Your task to perform on an android device: Search for "macbook" on walmart.com, select the first entry, add it to the cart, then select checkout. Image 0: 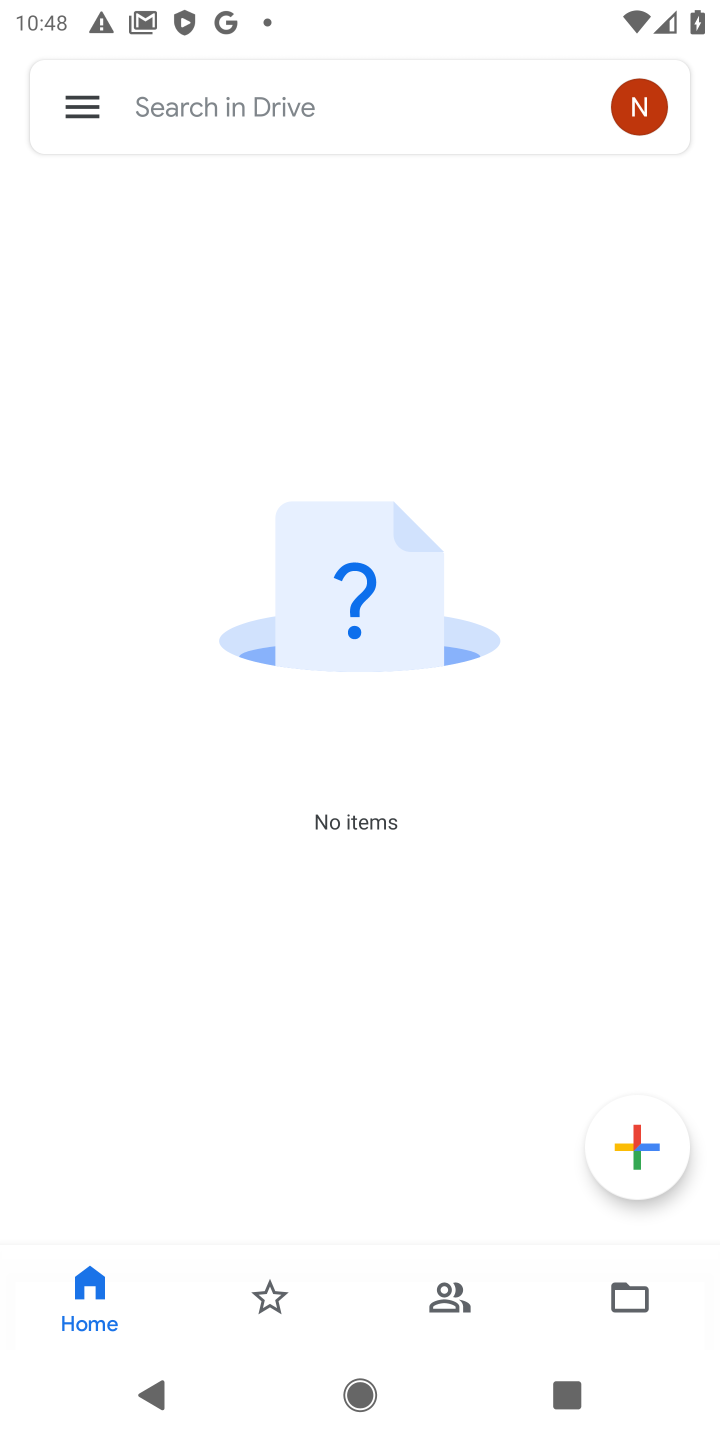
Step 0: press home button
Your task to perform on an android device: Search for "macbook" on walmart.com, select the first entry, add it to the cart, then select checkout. Image 1: 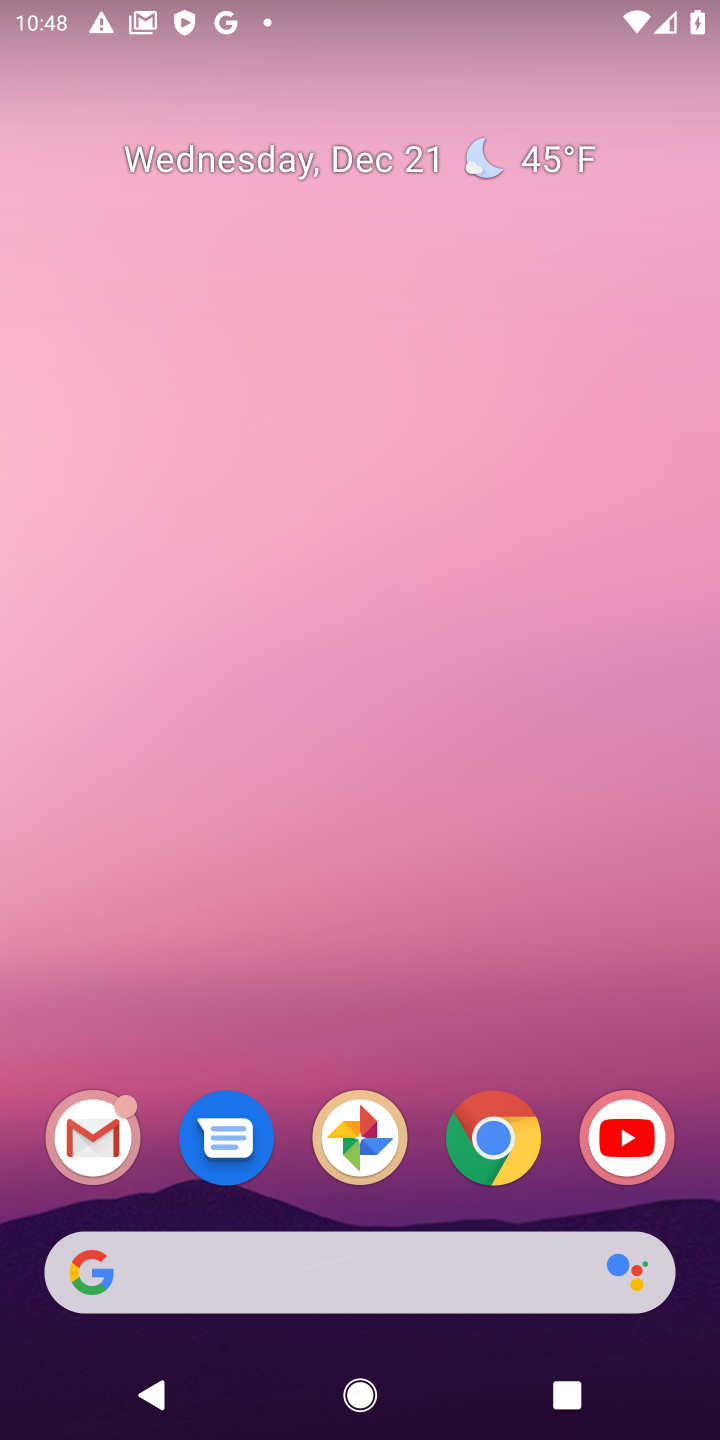
Step 1: click (502, 1143)
Your task to perform on an android device: Search for "macbook" on walmart.com, select the first entry, add it to the cart, then select checkout. Image 2: 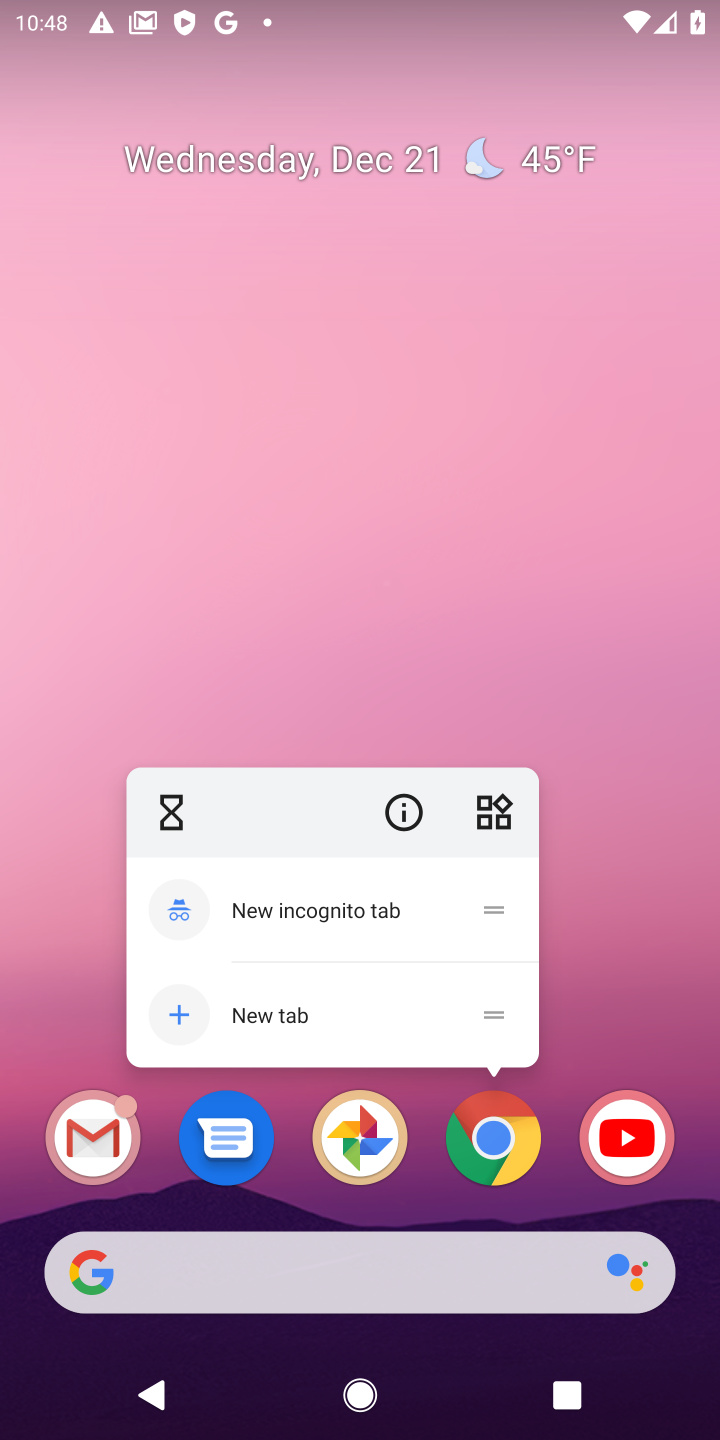
Step 2: click (495, 1156)
Your task to perform on an android device: Search for "macbook" on walmart.com, select the first entry, add it to the cart, then select checkout. Image 3: 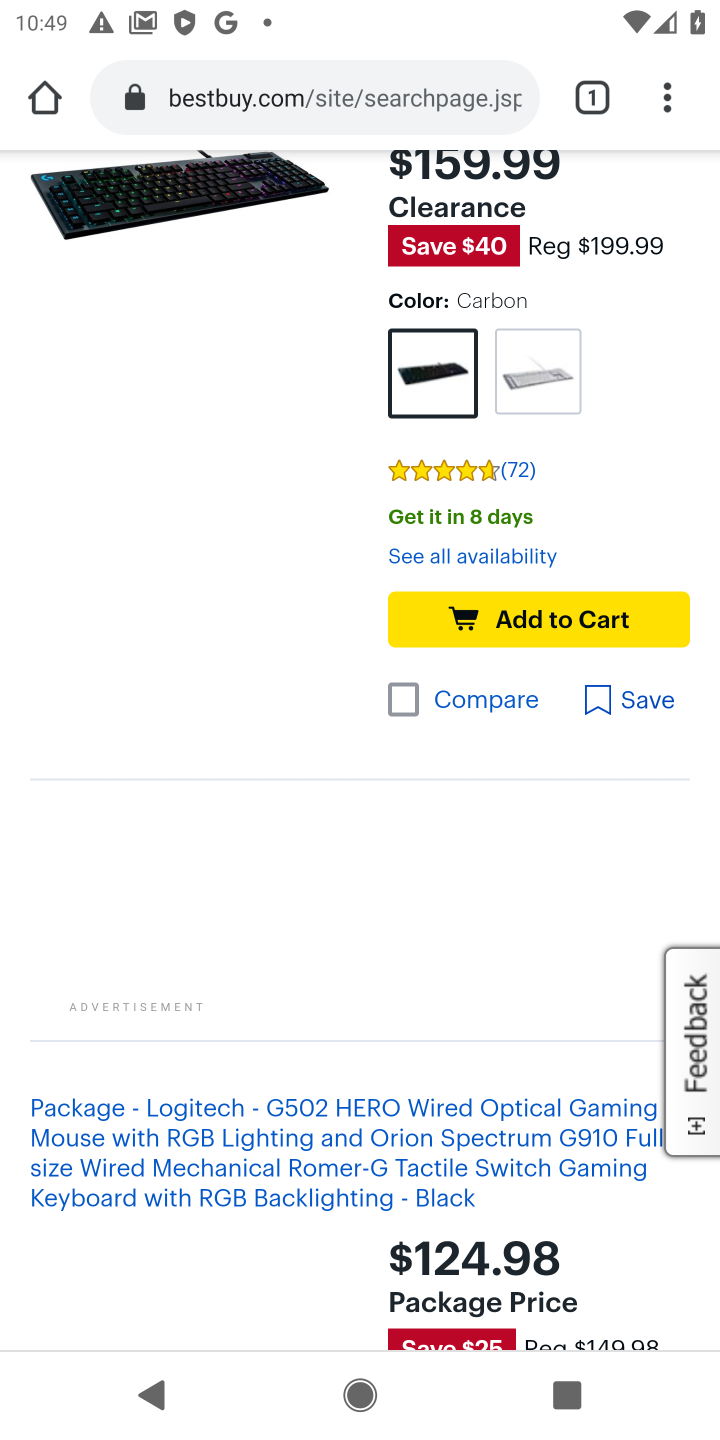
Step 3: click (245, 107)
Your task to perform on an android device: Search for "macbook" on walmart.com, select the first entry, add it to the cart, then select checkout. Image 4: 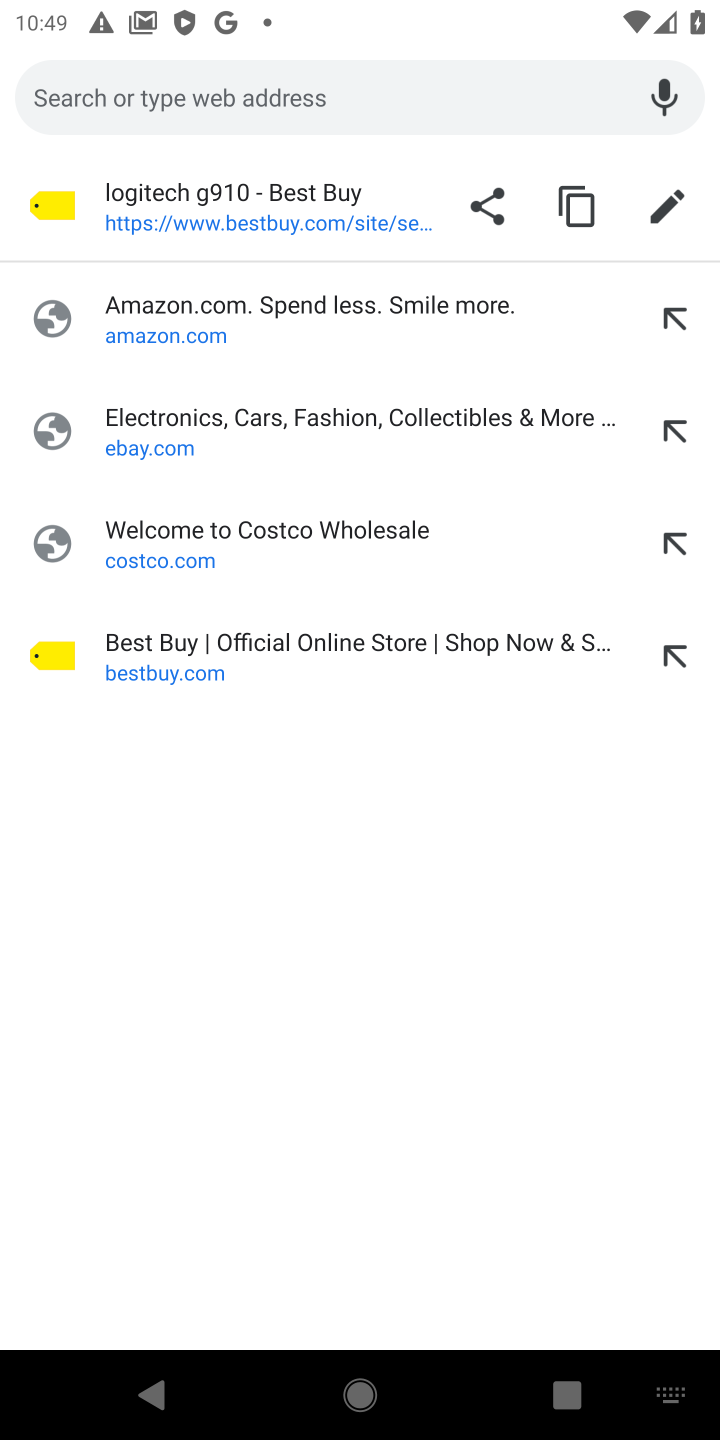
Step 4: type "walmart.com"
Your task to perform on an android device: Search for "macbook" on walmart.com, select the first entry, add it to the cart, then select checkout. Image 5: 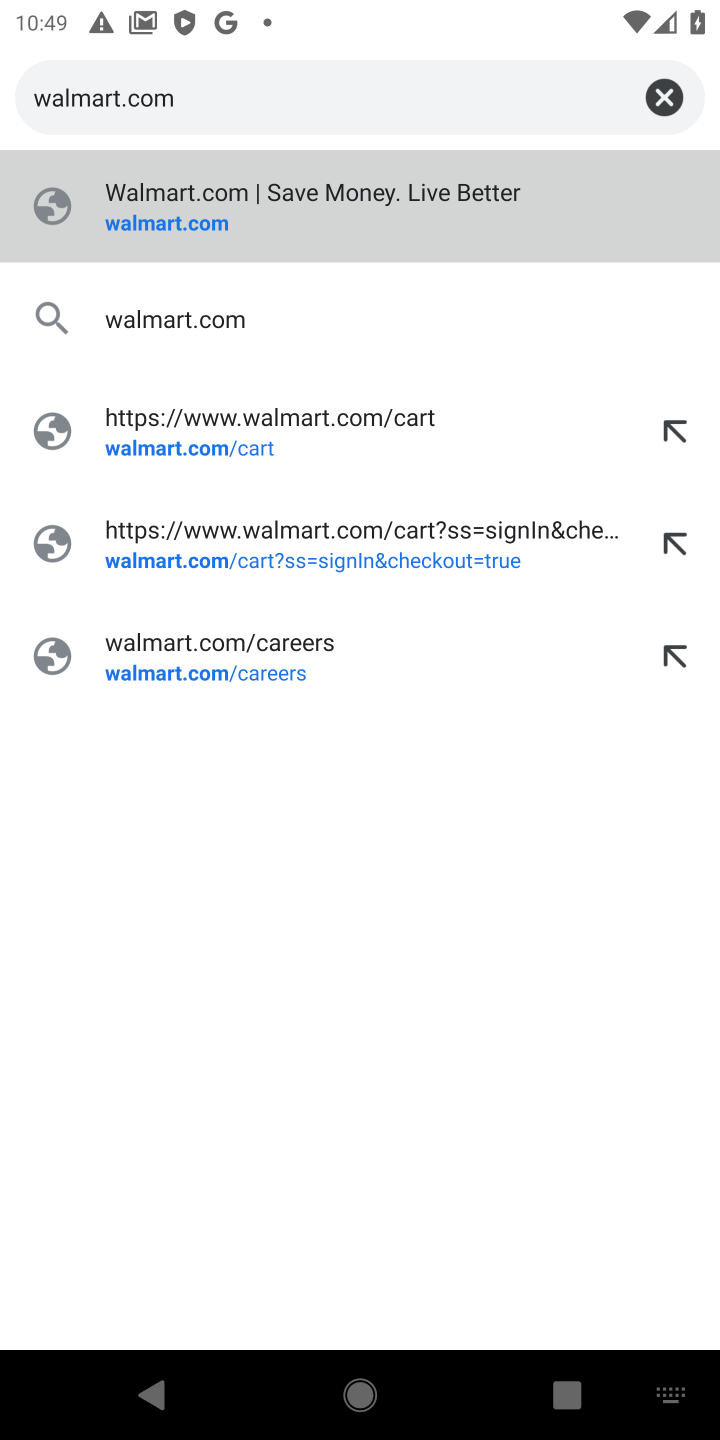
Step 5: click (144, 216)
Your task to perform on an android device: Search for "macbook" on walmart.com, select the first entry, add it to the cart, then select checkout. Image 6: 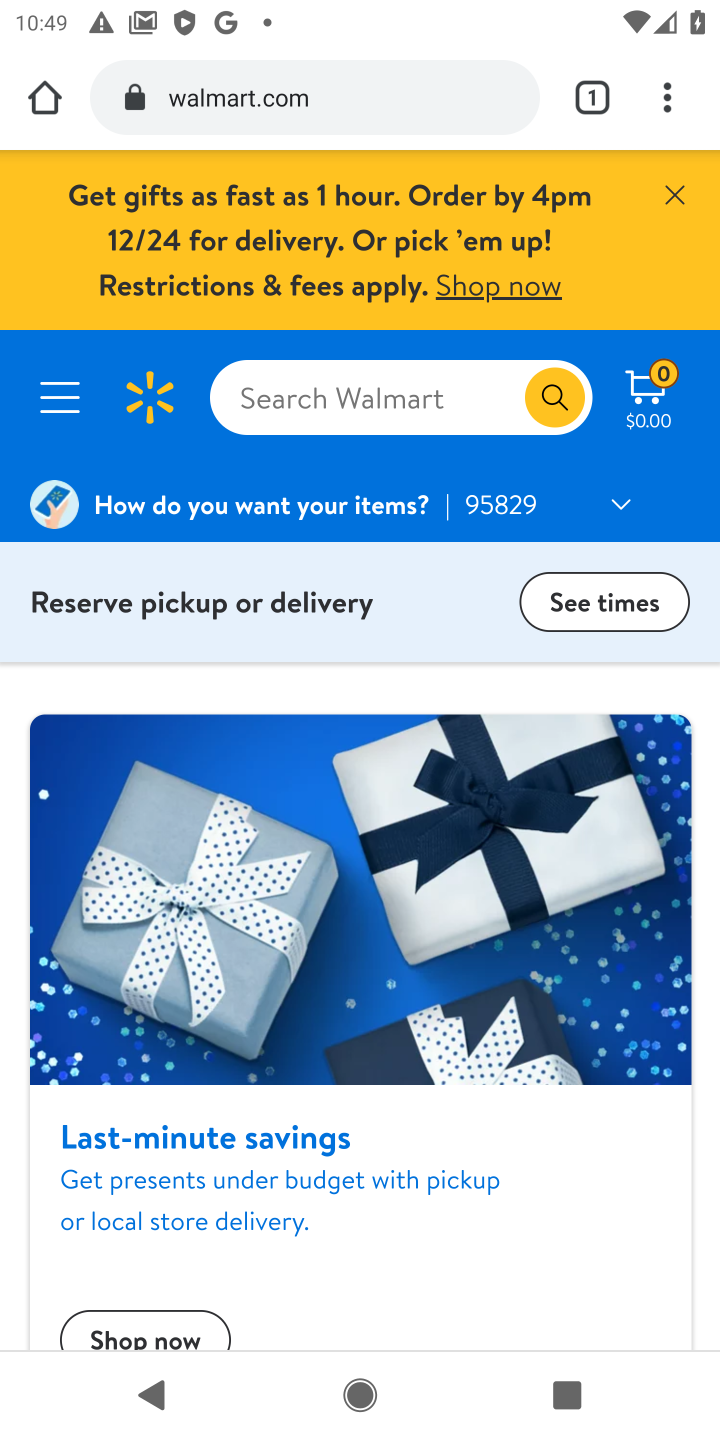
Step 6: click (306, 414)
Your task to perform on an android device: Search for "macbook" on walmart.com, select the first entry, add it to the cart, then select checkout. Image 7: 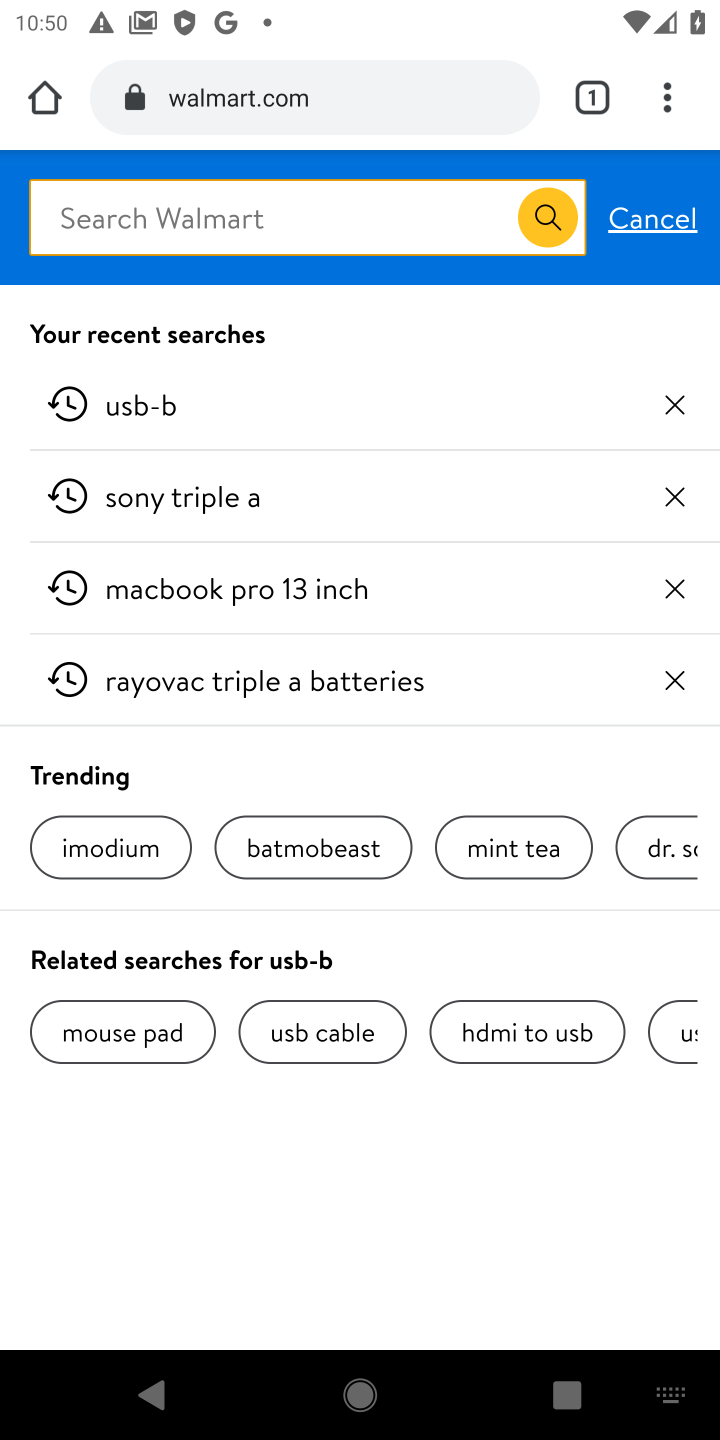
Step 7: click (160, 215)
Your task to perform on an android device: Search for "macbook" on walmart.com, select the first entry, add it to the cart, then select checkout. Image 8: 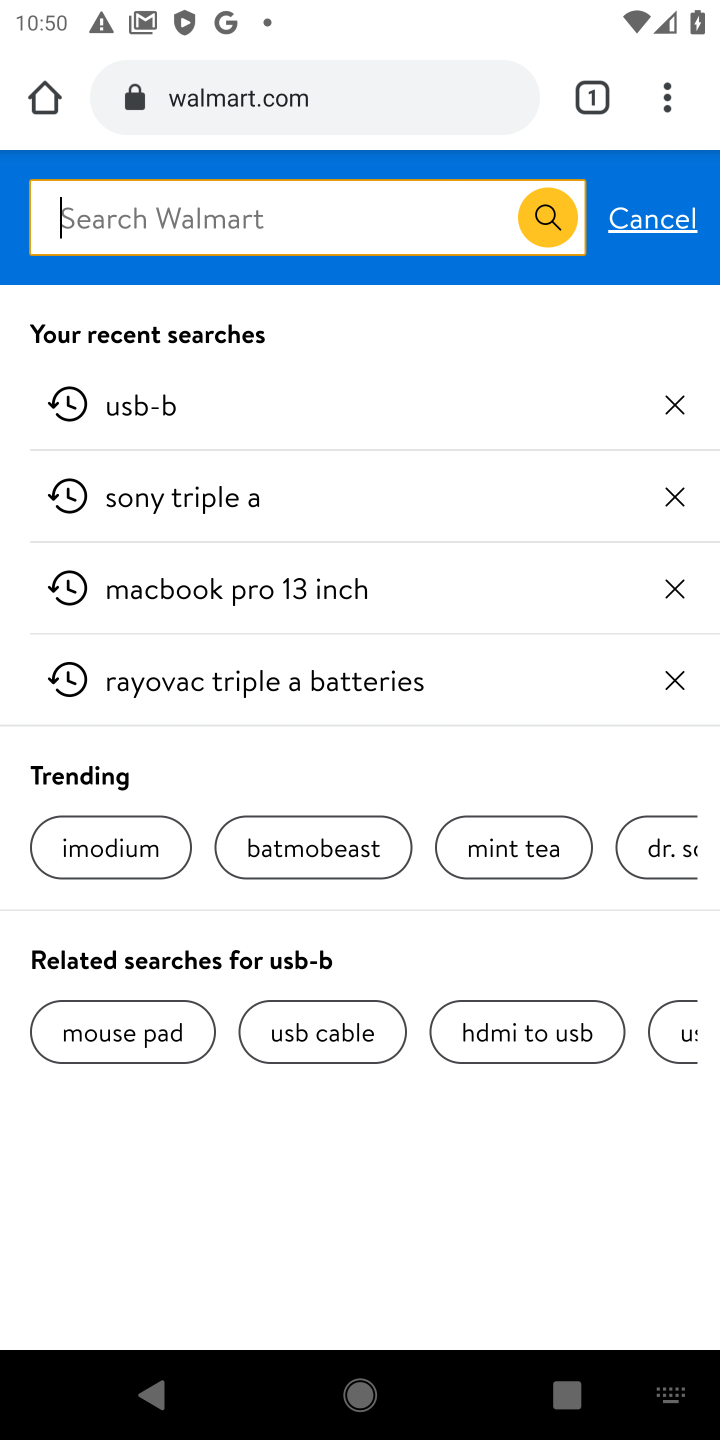
Step 8: type "macbook"
Your task to perform on an android device: Search for "macbook" on walmart.com, select the first entry, add it to the cart, then select checkout. Image 9: 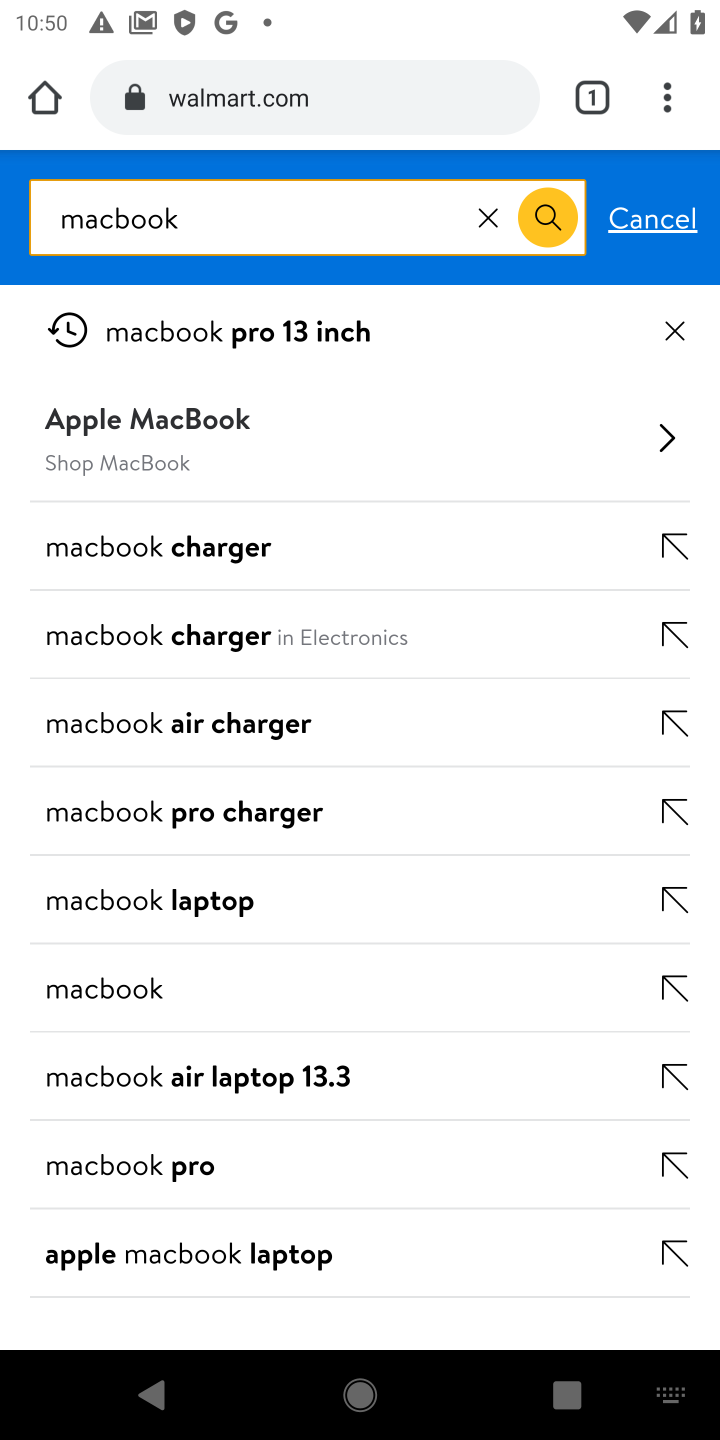
Step 9: click (100, 1008)
Your task to perform on an android device: Search for "macbook" on walmart.com, select the first entry, add it to the cart, then select checkout. Image 10: 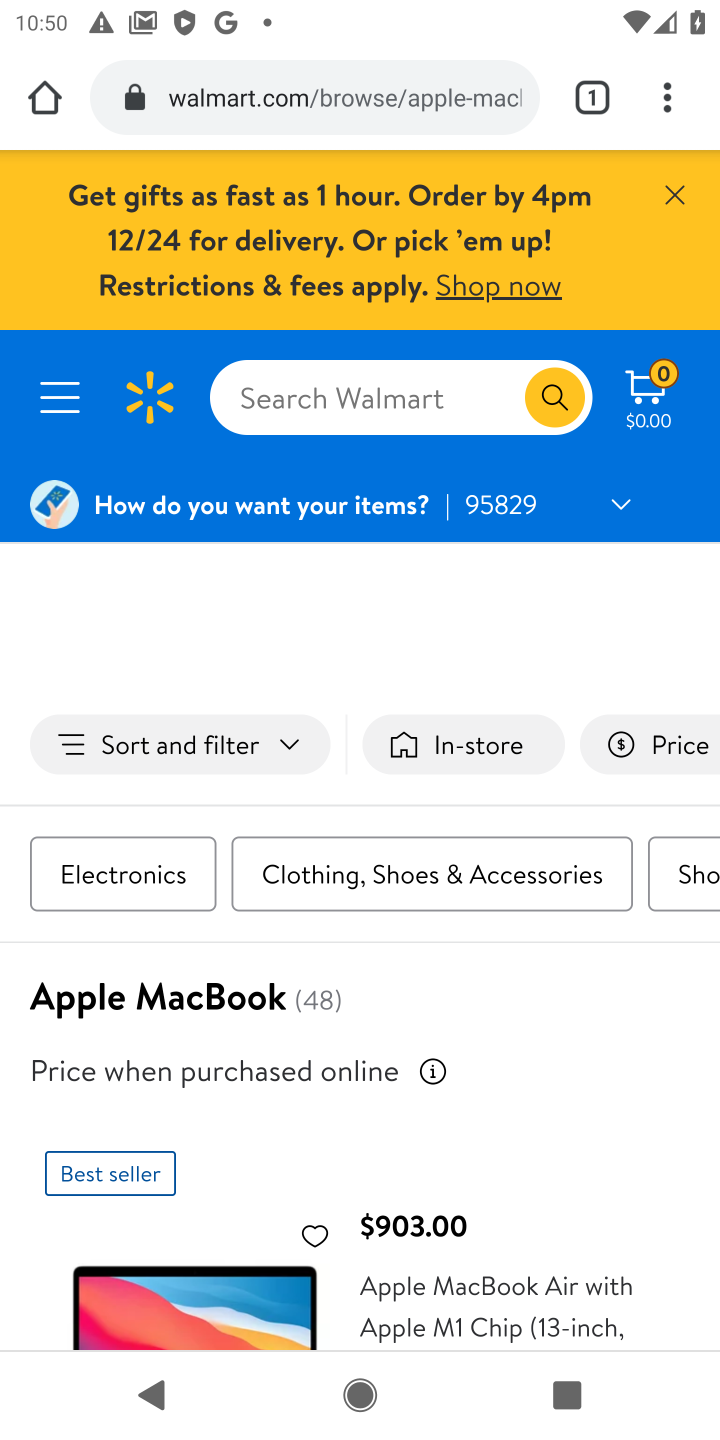
Step 10: drag from (333, 974) to (331, 524)
Your task to perform on an android device: Search for "macbook" on walmart.com, select the first entry, add it to the cart, then select checkout. Image 11: 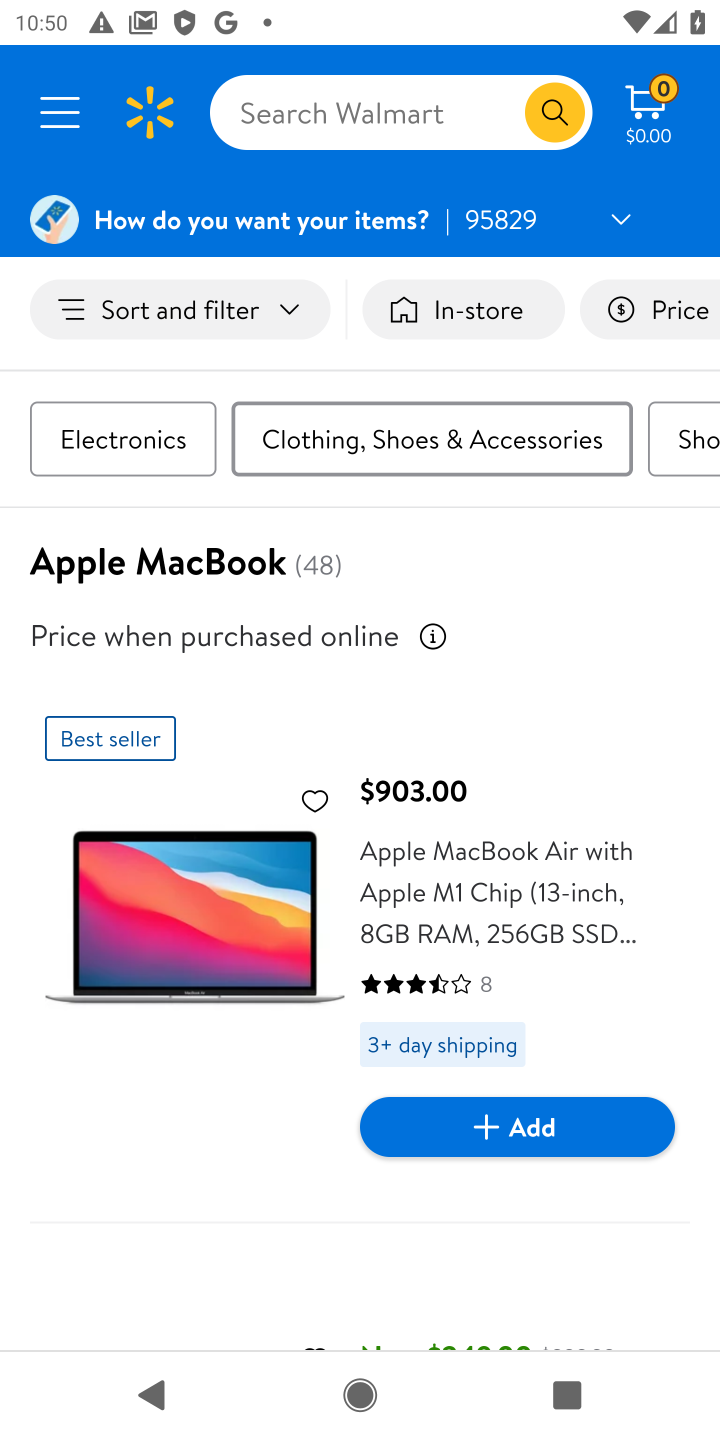
Step 11: click (508, 1126)
Your task to perform on an android device: Search for "macbook" on walmart.com, select the first entry, add it to the cart, then select checkout. Image 12: 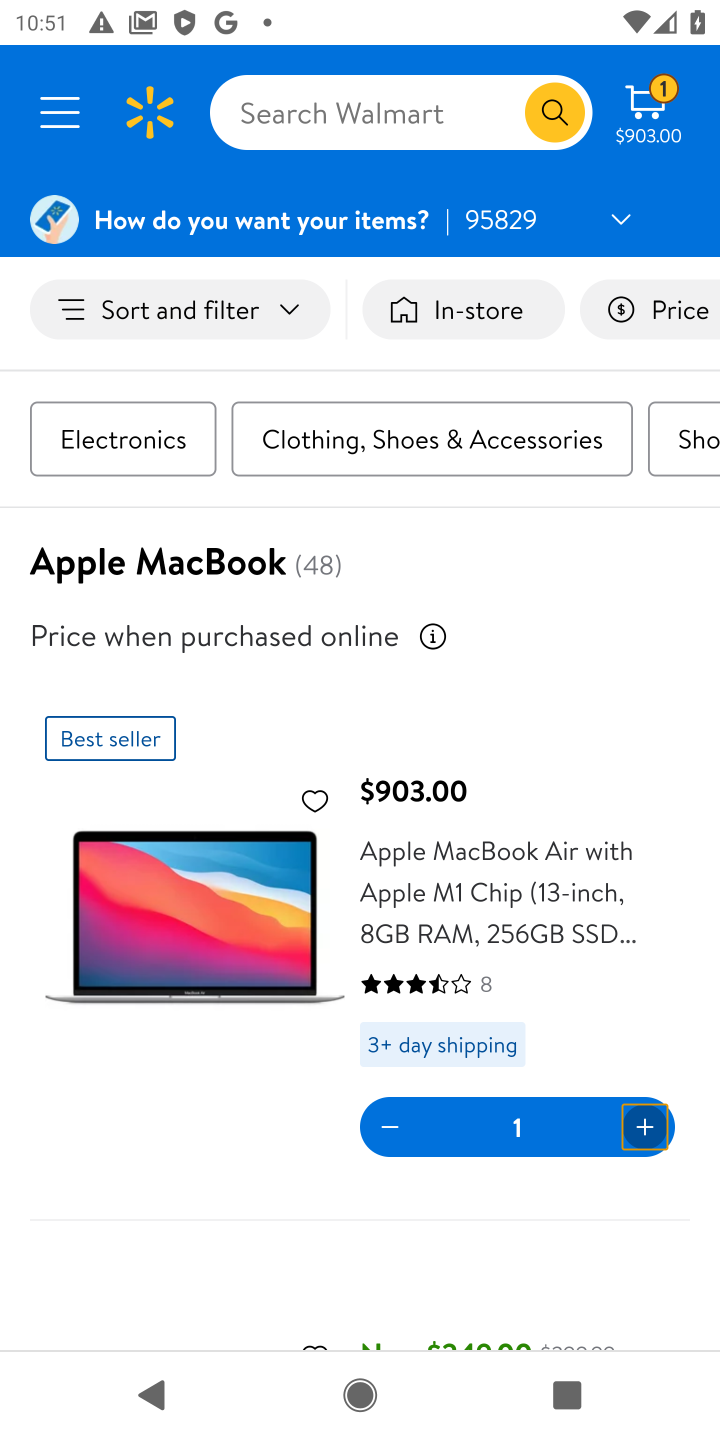
Step 12: click (657, 124)
Your task to perform on an android device: Search for "macbook" on walmart.com, select the first entry, add it to the cart, then select checkout. Image 13: 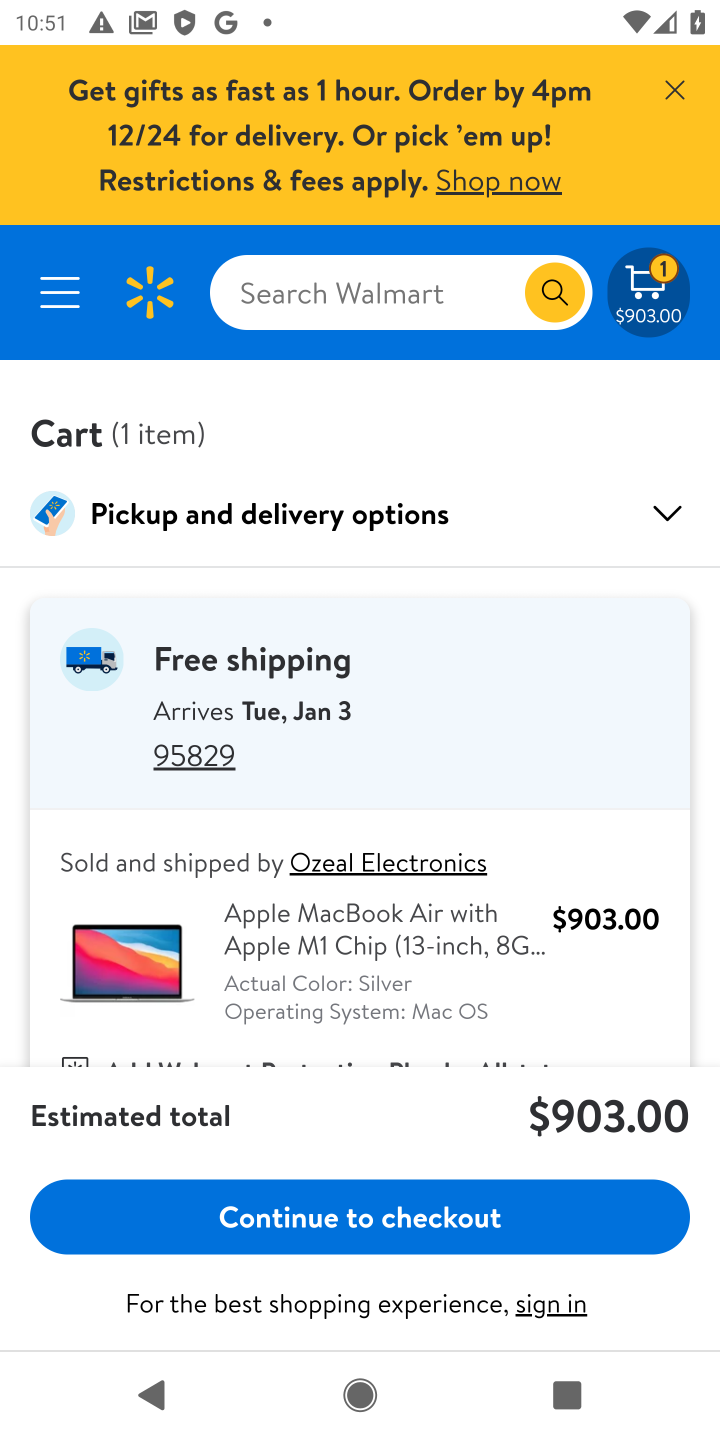
Step 13: click (396, 1235)
Your task to perform on an android device: Search for "macbook" on walmart.com, select the first entry, add it to the cart, then select checkout. Image 14: 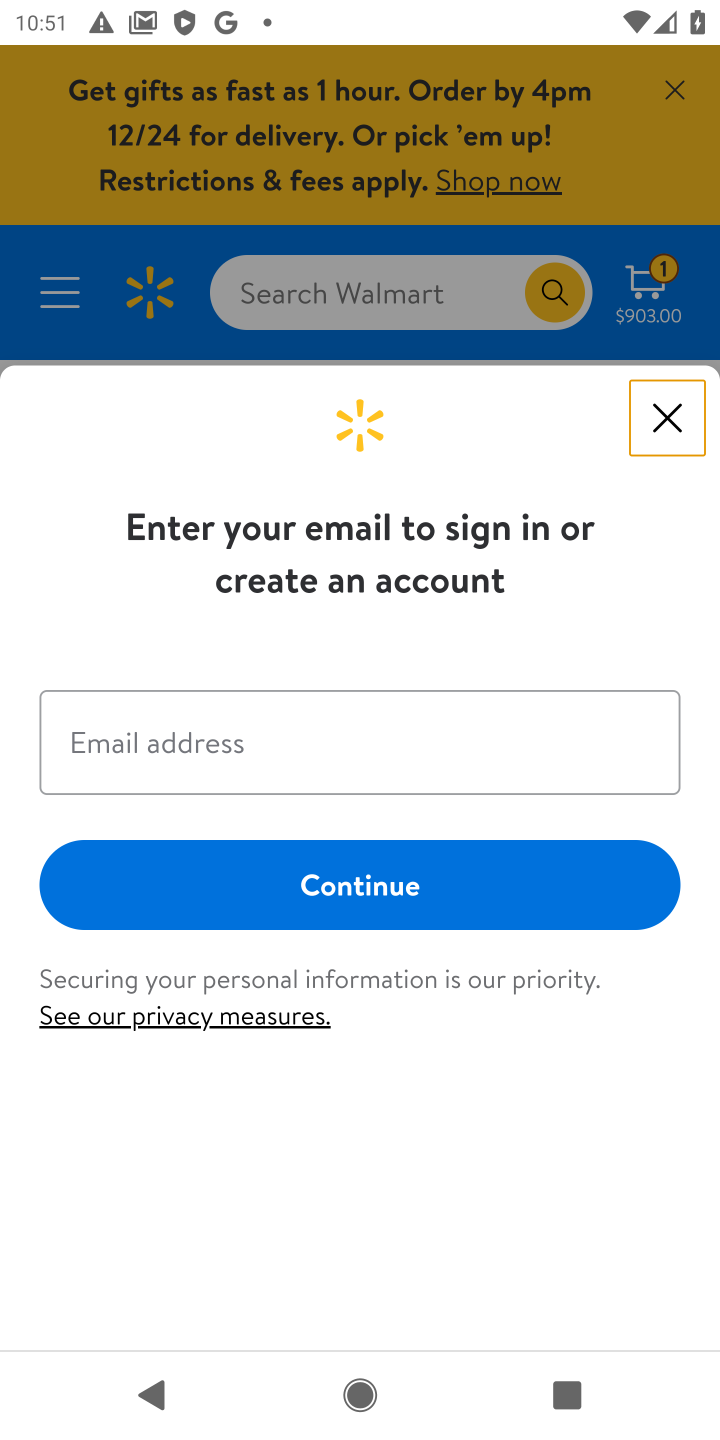
Step 14: task complete